Your task to perform on an android device: Open calendar and show me the second week of next month Image 0: 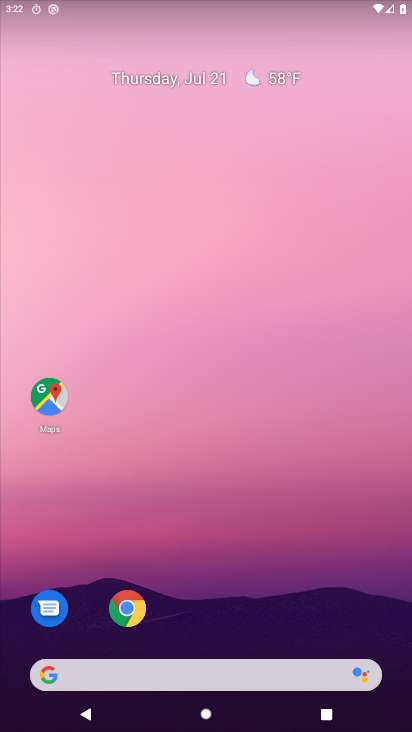
Step 0: press home button
Your task to perform on an android device: Open calendar and show me the second week of next month Image 1: 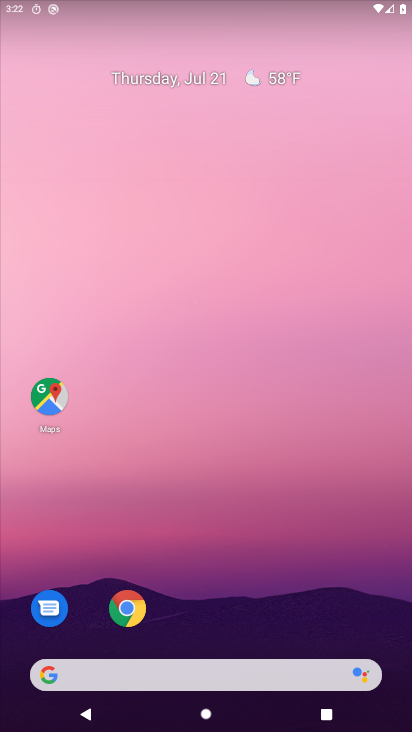
Step 1: drag from (202, 634) to (212, 196)
Your task to perform on an android device: Open calendar and show me the second week of next month Image 2: 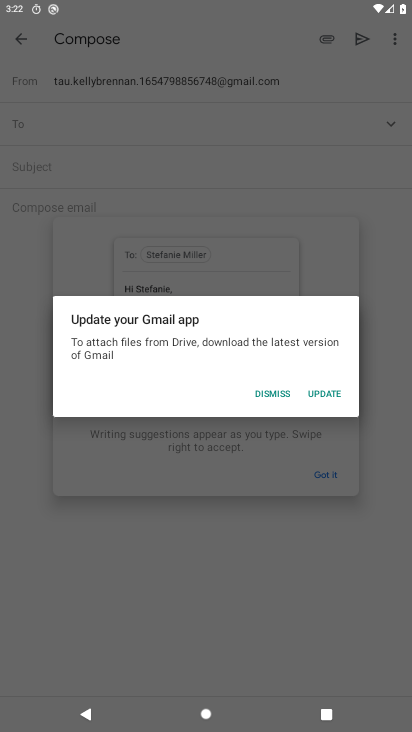
Step 2: press home button
Your task to perform on an android device: Open calendar and show me the second week of next month Image 3: 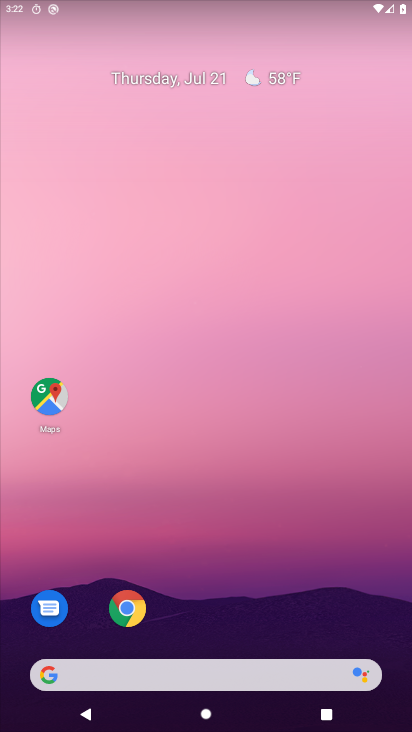
Step 3: drag from (230, 604) to (262, 105)
Your task to perform on an android device: Open calendar and show me the second week of next month Image 4: 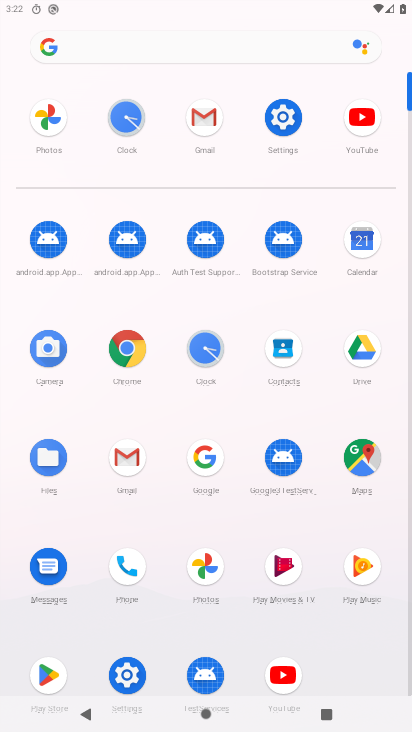
Step 4: click (361, 239)
Your task to perform on an android device: Open calendar and show me the second week of next month Image 5: 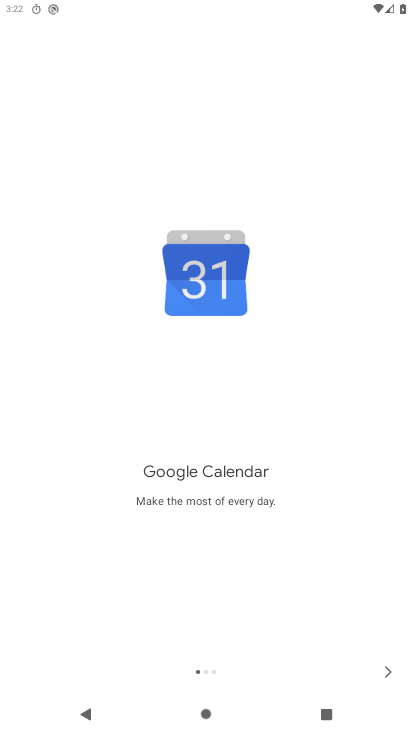
Step 5: click (385, 666)
Your task to perform on an android device: Open calendar and show me the second week of next month Image 6: 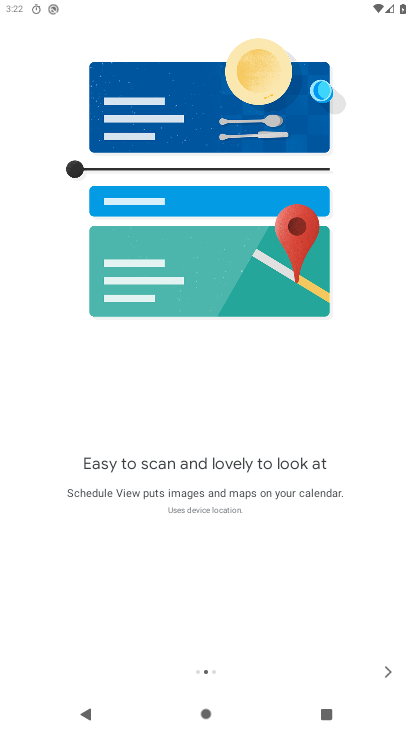
Step 6: click (389, 666)
Your task to perform on an android device: Open calendar and show me the second week of next month Image 7: 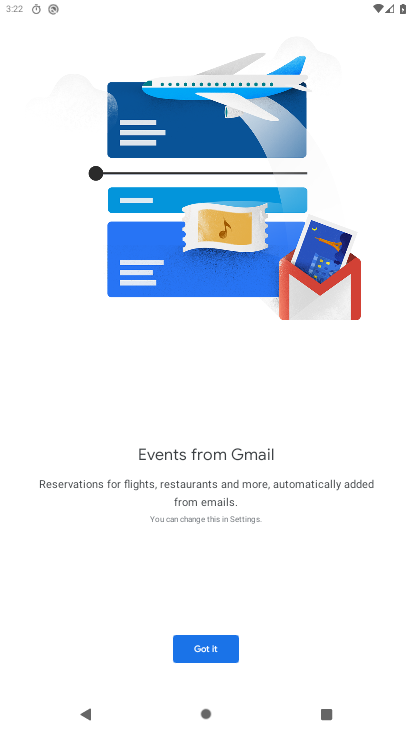
Step 7: click (211, 645)
Your task to perform on an android device: Open calendar and show me the second week of next month Image 8: 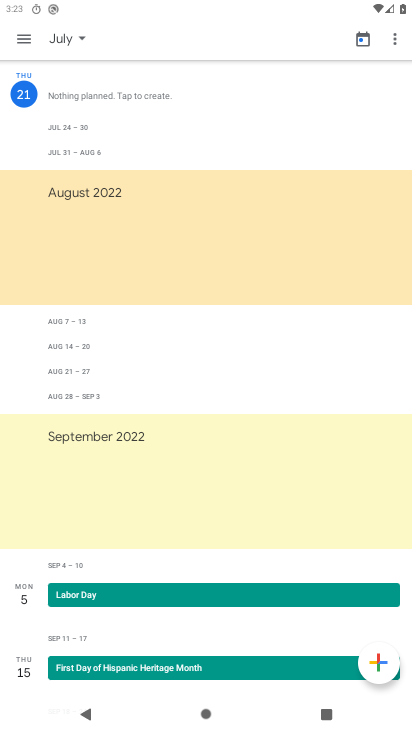
Step 8: click (81, 36)
Your task to perform on an android device: Open calendar and show me the second week of next month Image 9: 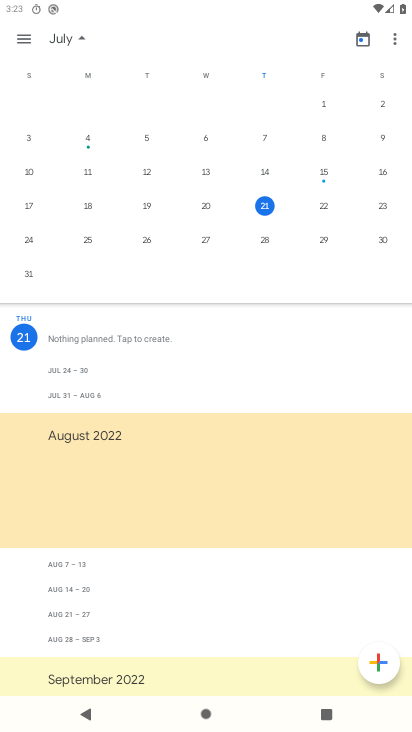
Step 9: drag from (356, 164) to (7, 146)
Your task to perform on an android device: Open calendar and show me the second week of next month Image 10: 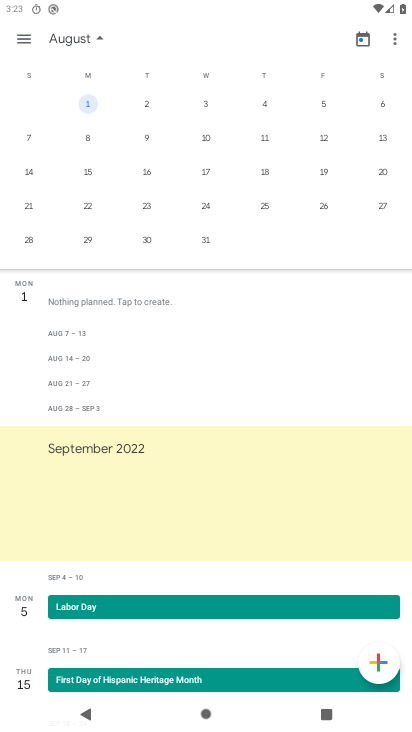
Step 10: click (27, 133)
Your task to perform on an android device: Open calendar and show me the second week of next month Image 11: 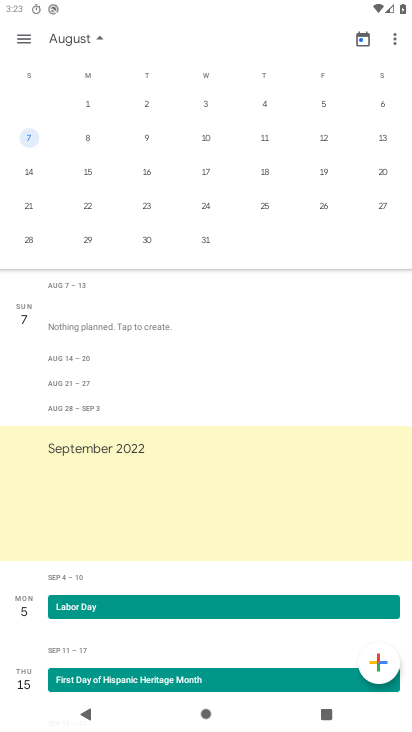
Step 11: click (23, 36)
Your task to perform on an android device: Open calendar and show me the second week of next month Image 12: 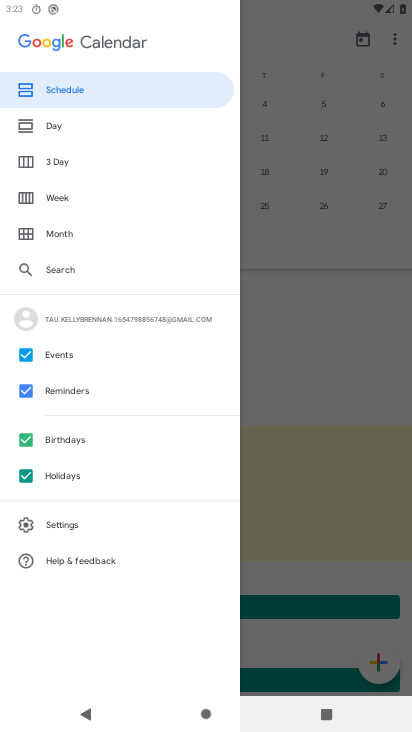
Step 12: click (67, 197)
Your task to perform on an android device: Open calendar and show me the second week of next month Image 13: 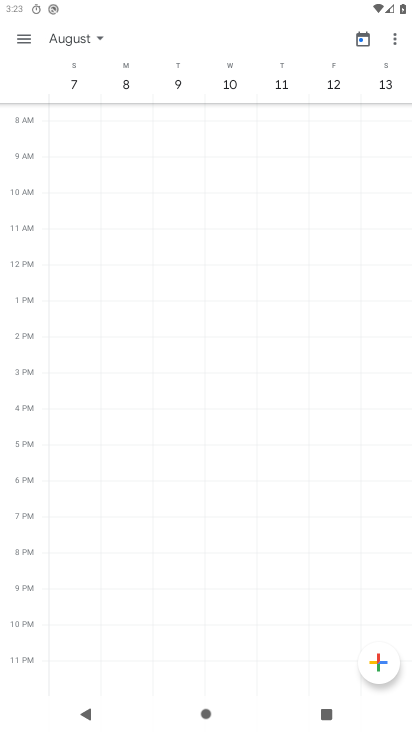
Step 13: task complete